Your task to perform on an android device: open device folders in google photos Image 0: 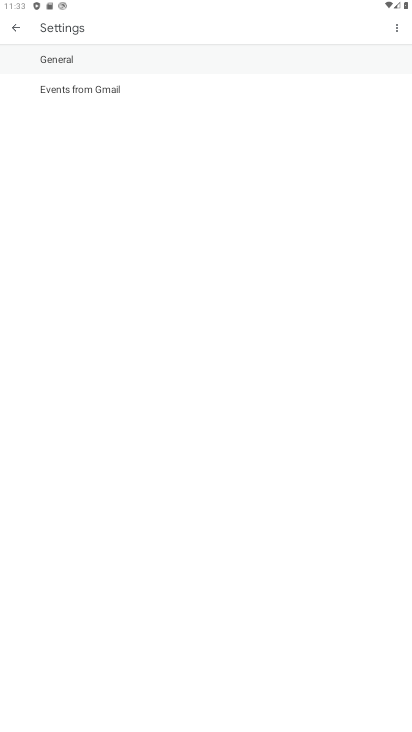
Step 0: press home button
Your task to perform on an android device: open device folders in google photos Image 1: 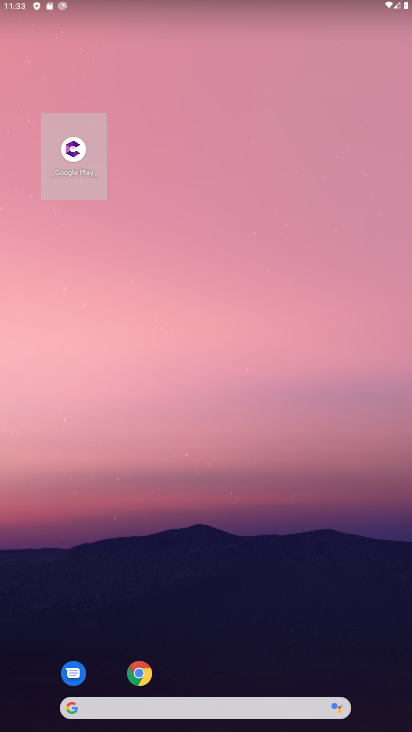
Step 1: drag from (230, 661) to (261, 377)
Your task to perform on an android device: open device folders in google photos Image 2: 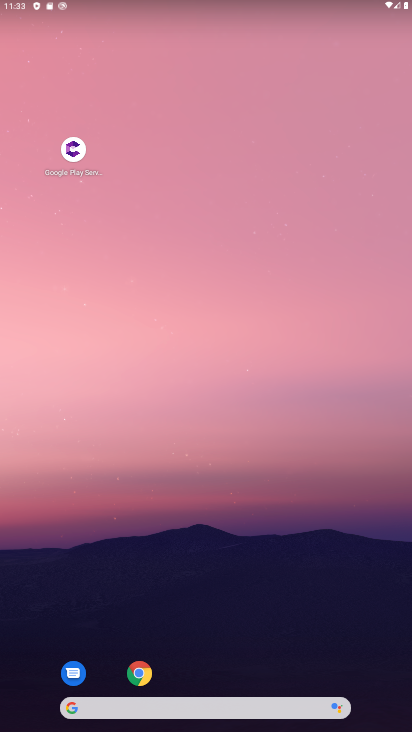
Step 2: drag from (250, 440) to (288, 157)
Your task to perform on an android device: open device folders in google photos Image 3: 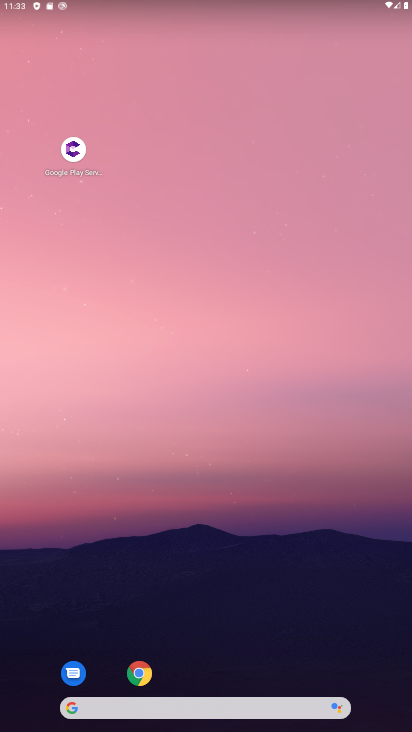
Step 3: drag from (235, 633) to (209, 89)
Your task to perform on an android device: open device folders in google photos Image 4: 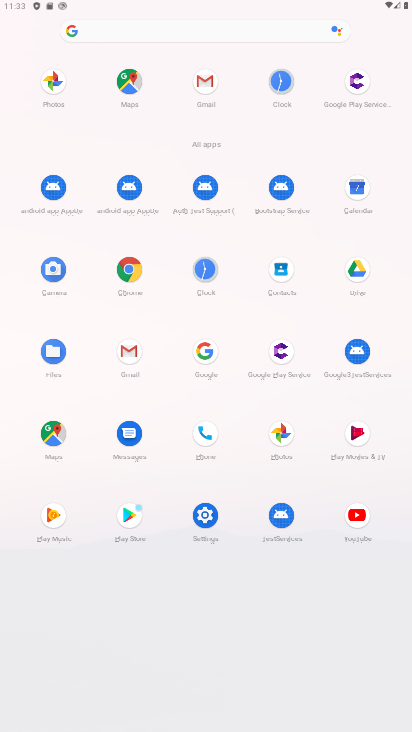
Step 4: click (56, 88)
Your task to perform on an android device: open device folders in google photos Image 5: 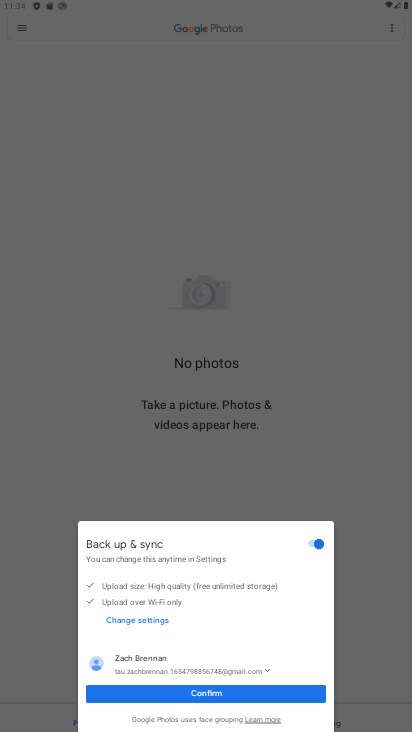
Step 5: click (261, 696)
Your task to perform on an android device: open device folders in google photos Image 6: 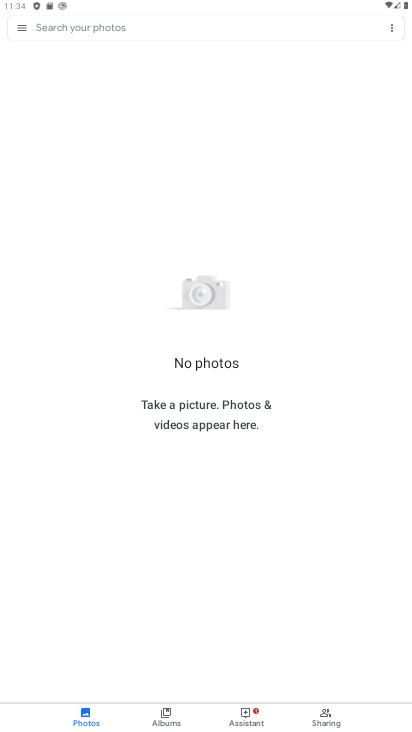
Step 6: click (233, 704)
Your task to perform on an android device: open device folders in google photos Image 7: 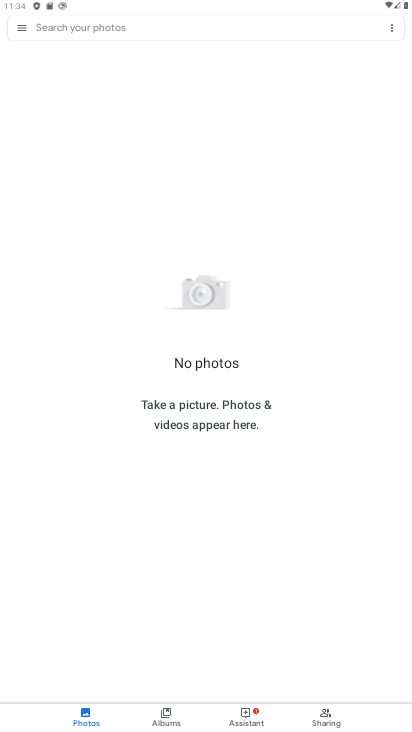
Step 7: click (172, 716)
Your task to perform on an android device: open device folders in google photos Image 8: 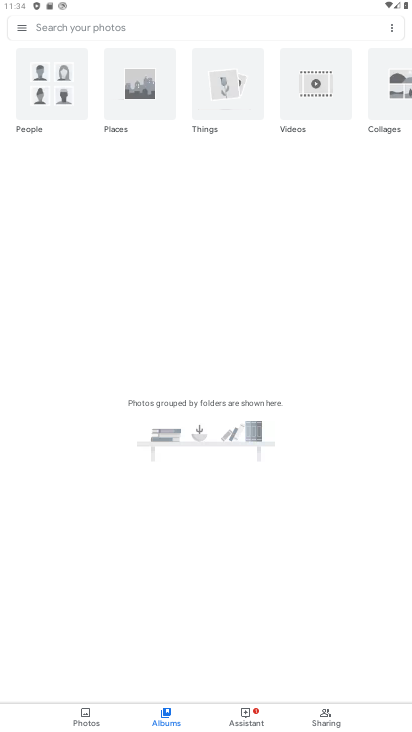
Step 8: task complete